Your task to perform on an android device: change the upload size in google photos Image 0: 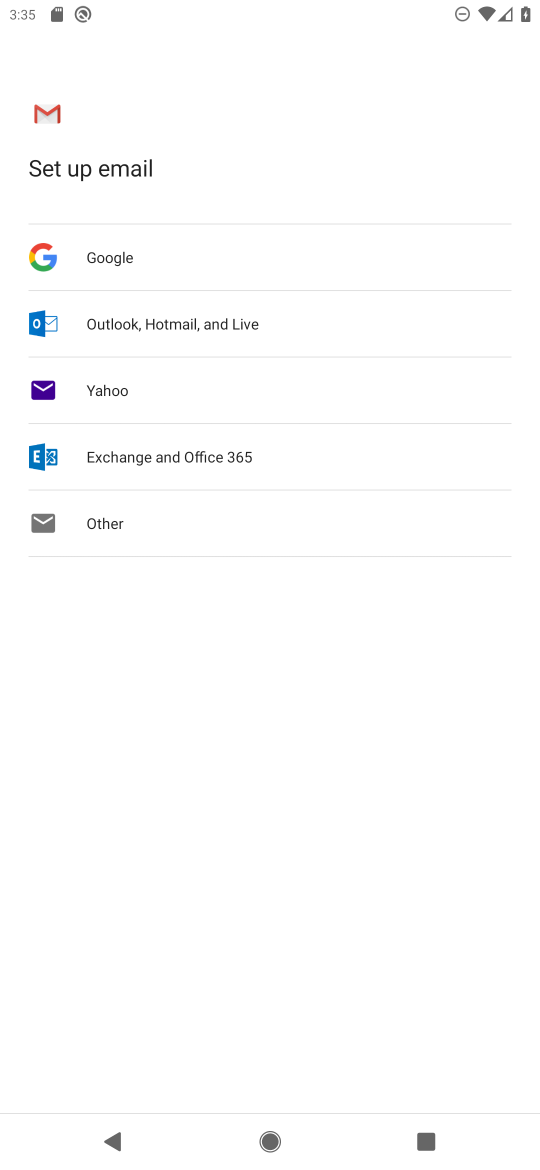
Step 0: press home button
Your task to perform on an android device: change the upload size in google photos Image 1: 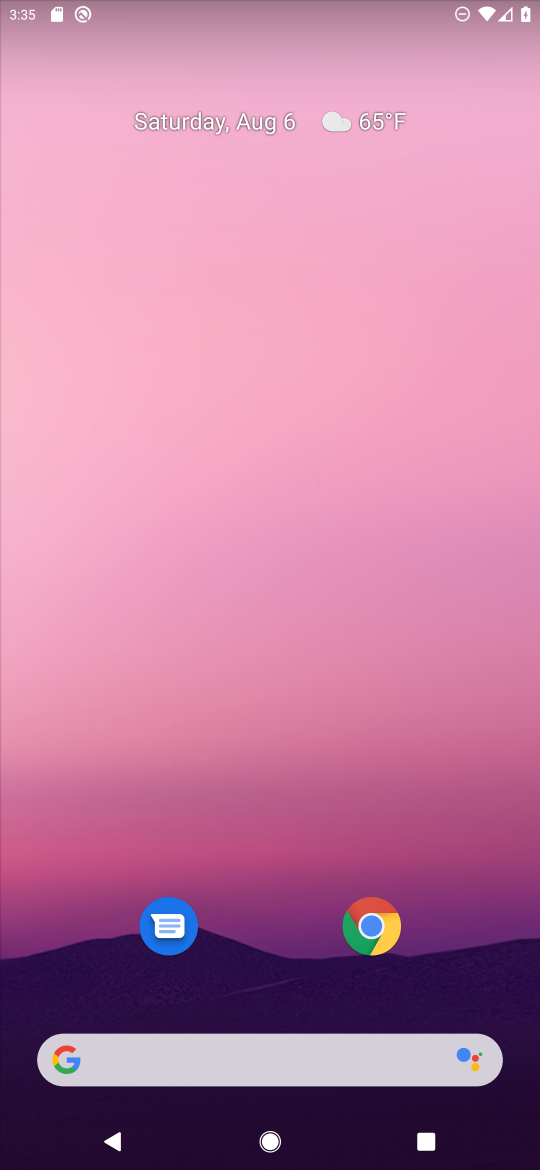
Step 1: drag from (259, 900) to (238, 291)
Your task to perform on an android device: change the upload size in google photos Image 2: 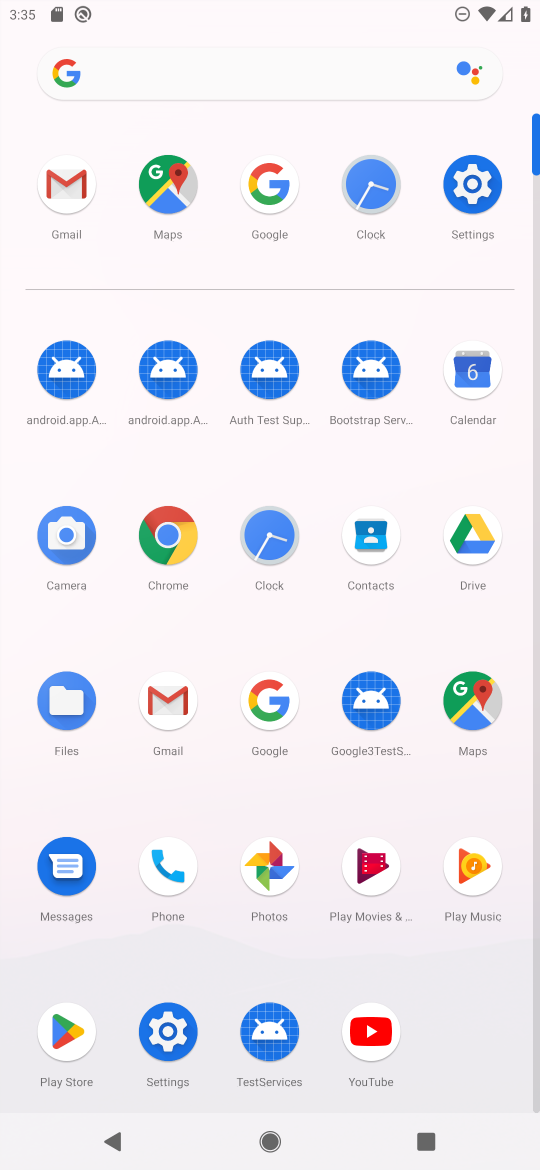
Step 2: click (286, 897)
Your task to perform on an android device: change the upload size in google photos Image 3: 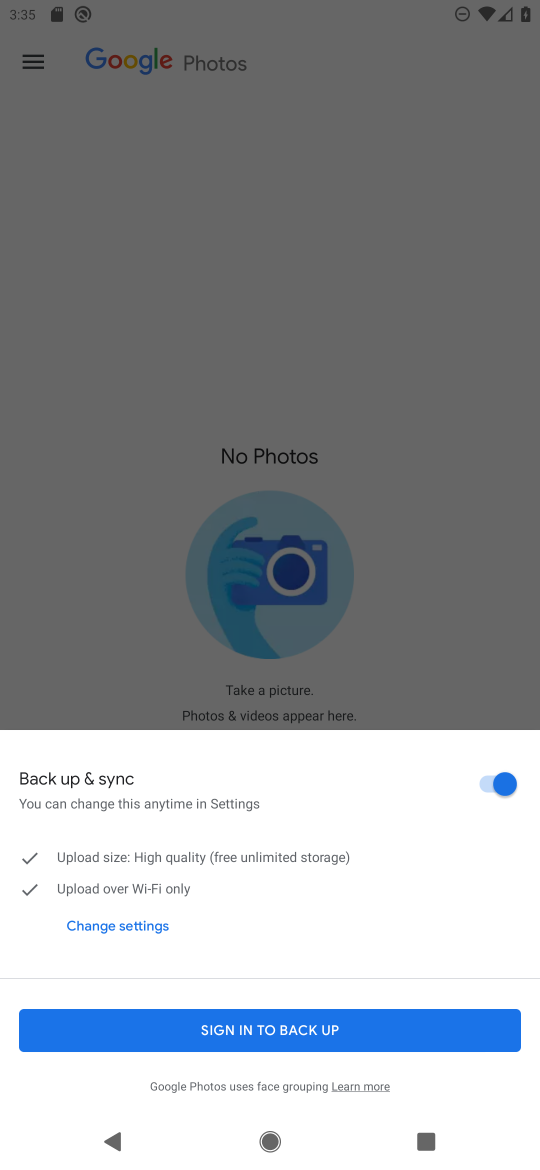
Step 3: click (369, 1028)
Your task to perform on an android device: change the upload size in google photos Image 4: 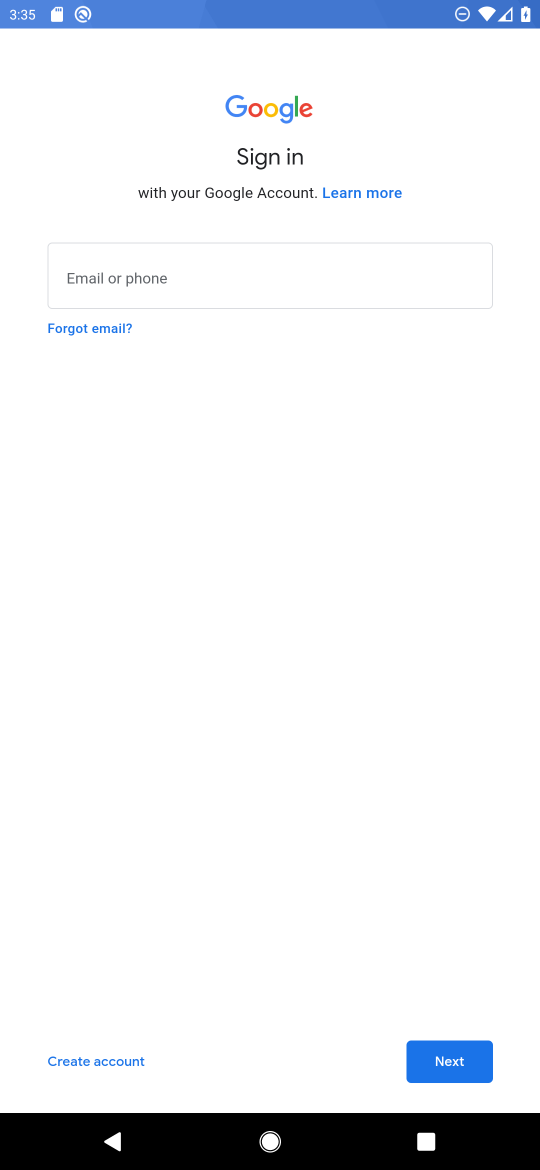
Step 4: task complete